Your task to perform on an android device: Go to sound settings Image 0: 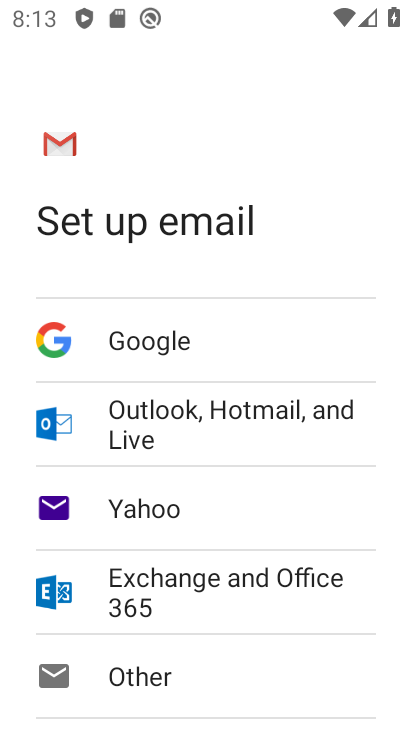
Step 0: press home button
Your task to perform on an android device: Go to sound settings Image 1: 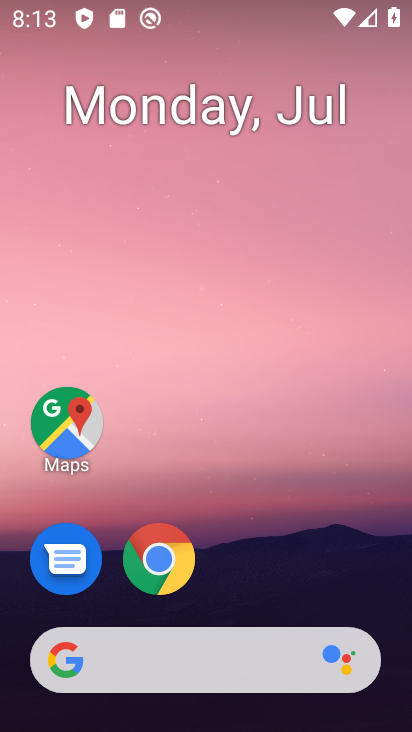
Step 1: drag from (322, 572) to (305, 139)
Your task to perform on an android device: Go to sound settings Image 2: 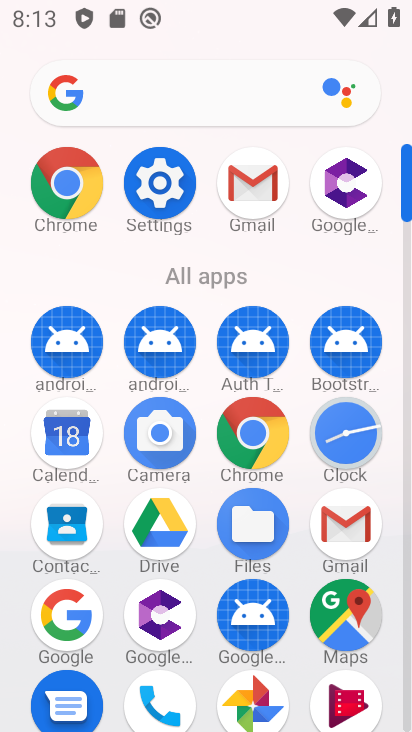
Step 2: click (169, 197)
Your task to perform on an android device: Go to sound settings Image 3: 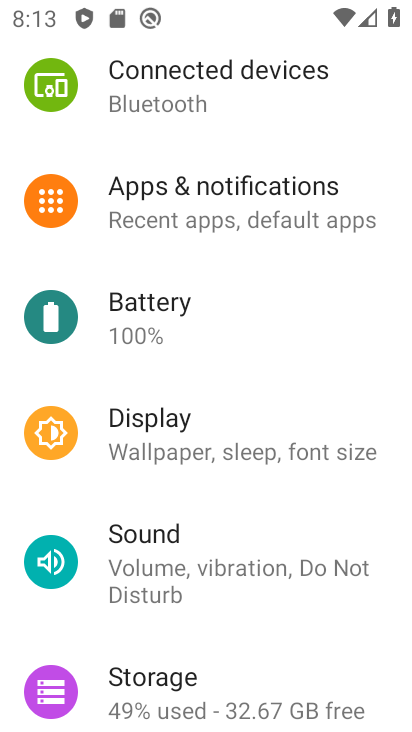
Step 3: click (252, 548)
Your task to perform on an android device: Go to sound settings Image 4: 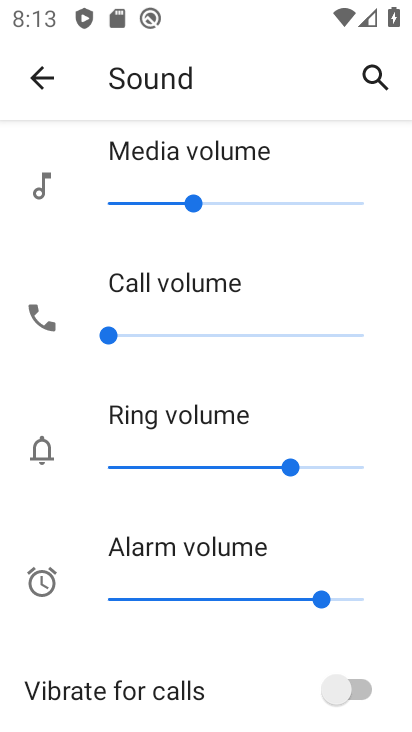
Step 4: task complete